Your task to perform on an android device: Open the phone app and click the voicemail tab. Image 0: 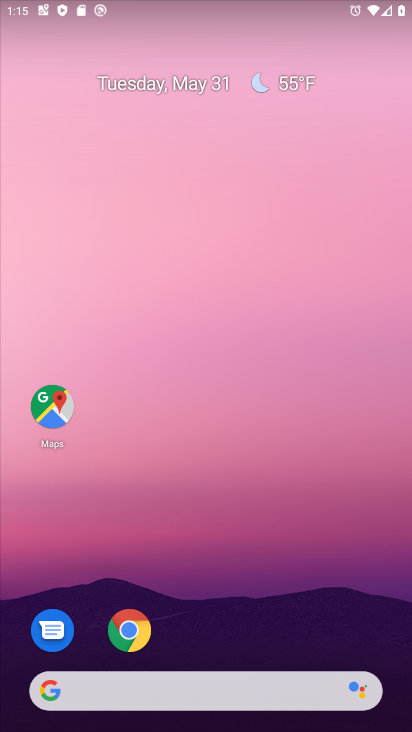
Step 0: drag from (248, 677) to (244, 303)
Your task to perform on an android device: Open the phone app and click the voicemail tab. Image 1: 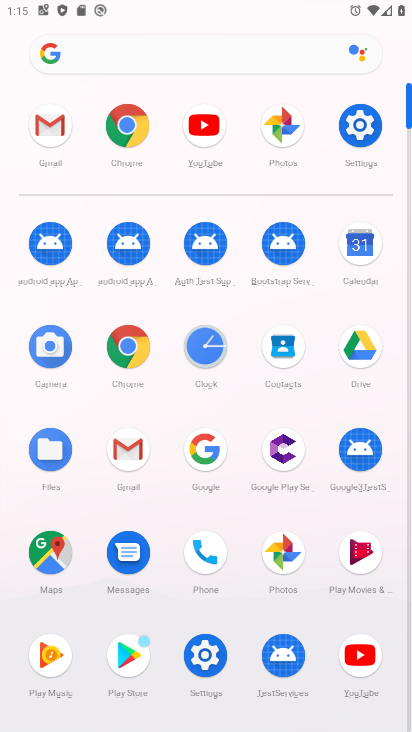
Step 1: click (205, 563)
Your task to perform on an android device: Open the phone app and click the voicemail tab. Image 2: 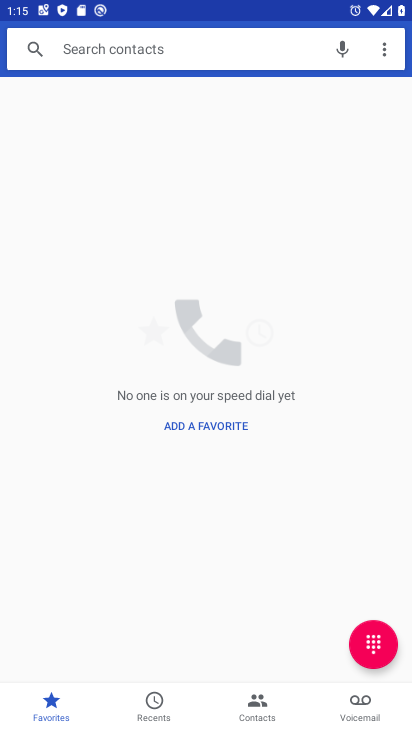
Step 2: click (364, 708)
Your task to perform on an android device: Open the phone app and click the voicemail tab. Image 3: 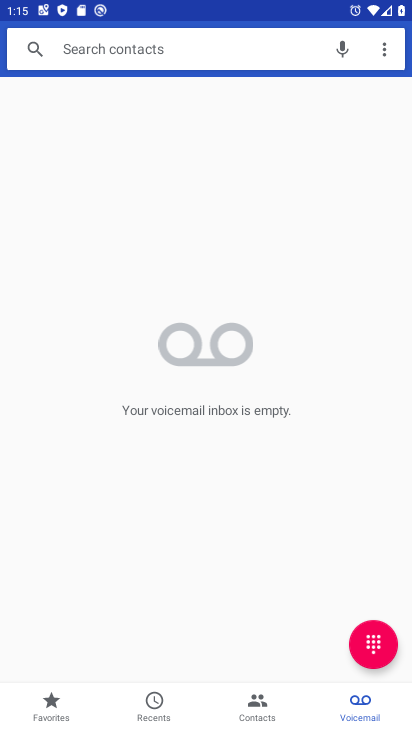
Step 3: task complete